Your task to perform on an android device: see sites visited before in the chrome app Image 0: 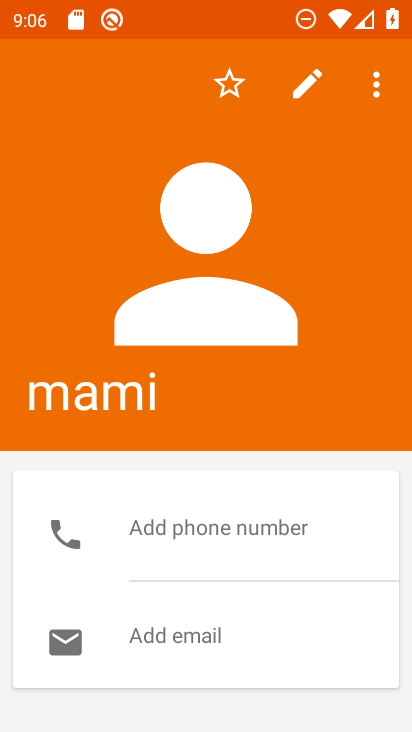
Step 0: press home button
Your task to perform on an android device: see sites visited before in the chrome app Image 1: 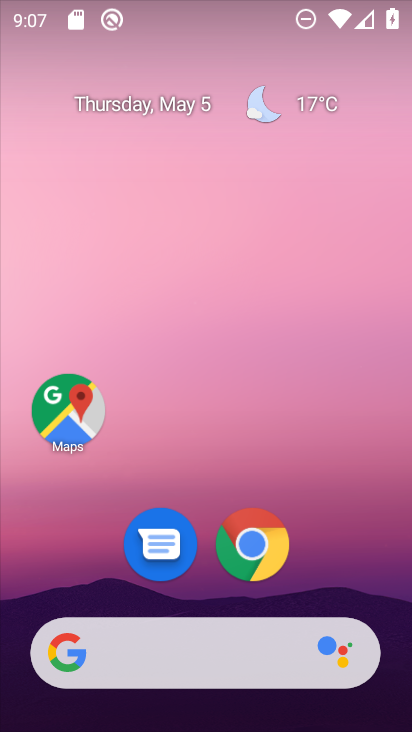
Step 1: drag from (396, 658) to (306, 113)
Your task to perform on an android device: see sites visited before in the chrome app Image 2: 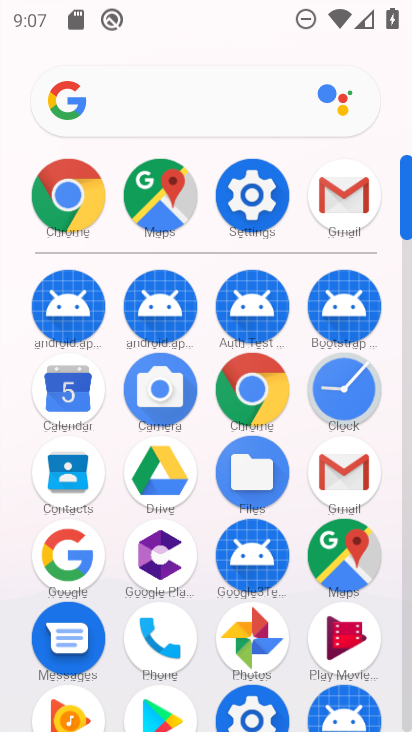
Step 2: click (68, 187)
Your task to perform on an android device: see sites visited before in the chrome app Image 3: 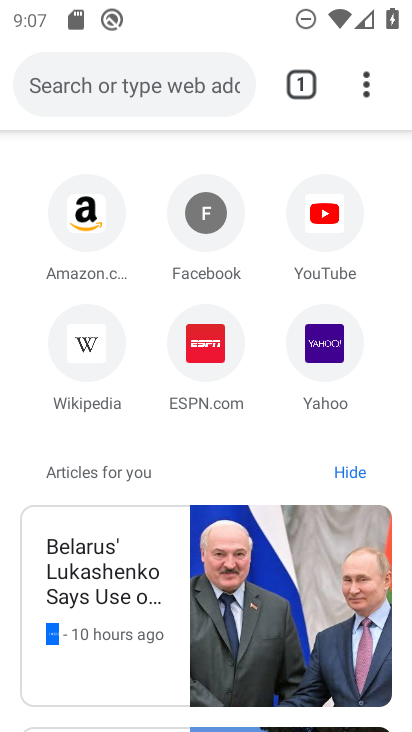
Step 3: click (365, 81)
Your task to perform on an android device: see sites visited before in the chrome app Image 4: 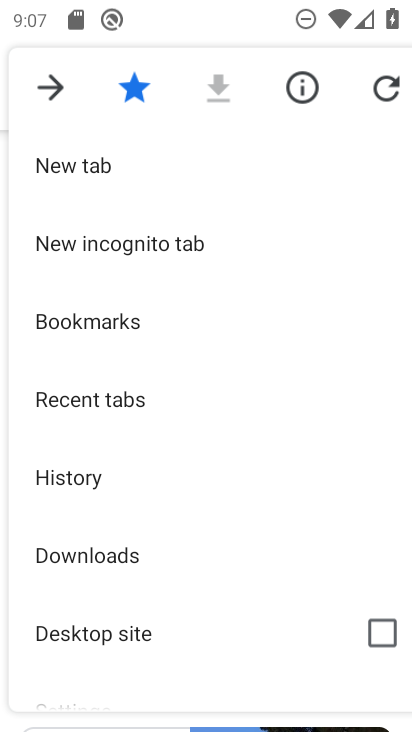
Step 4: click (133, 473)
Your task to perform on an android device: see sites visited before in the chrome app Image 5: 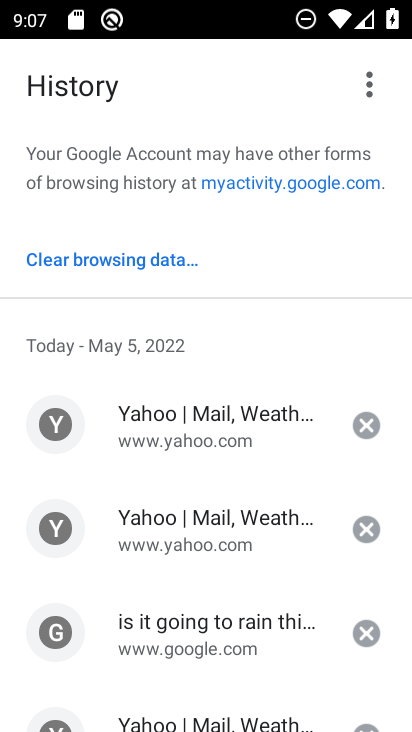
Step 5: click (135, 412)
Your task to perform on an android device: see sites visited before in the chrome app Image 6: 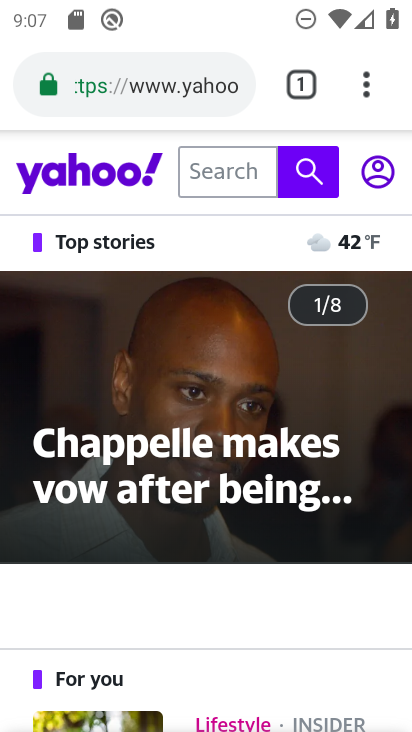
Step 6: task complete